Your task to perform on an android device: check storage Image 0: 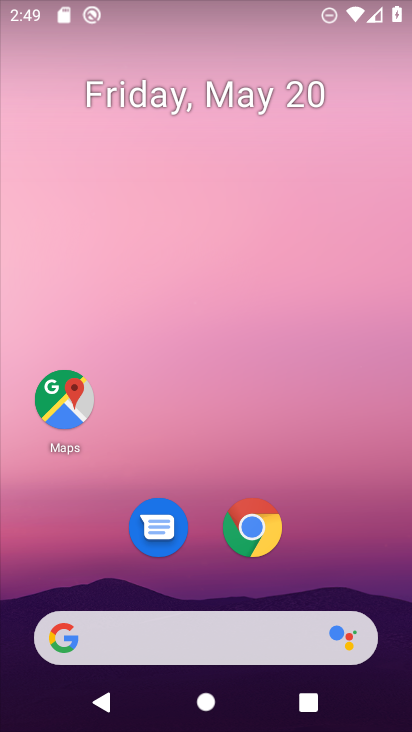
Step 0: drag from (190, 537) to (257, 53)
Your task to perform on an android device: check storage Image 1: 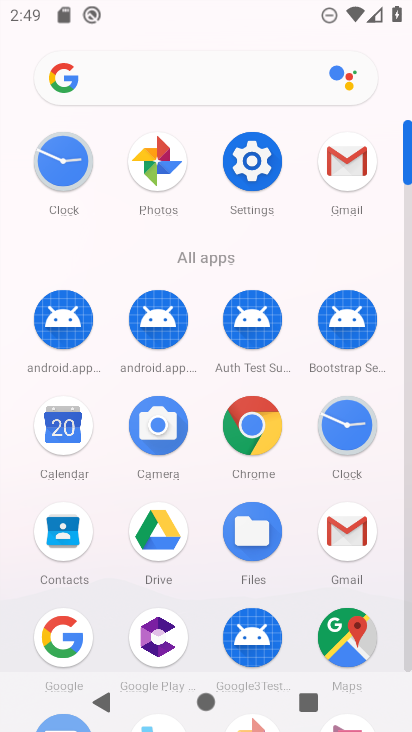
Step 1: click (250, 168)
Your task to perform on an android device: check storage Image 2: 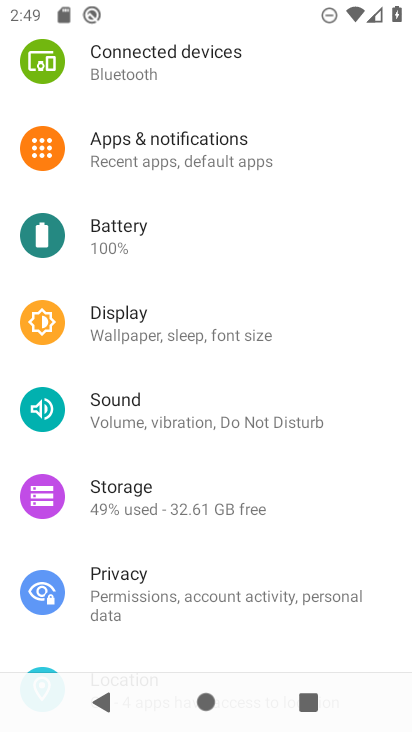
Step 2: click (112, 520)
Your task to perform on an android device: check storage Image 3: 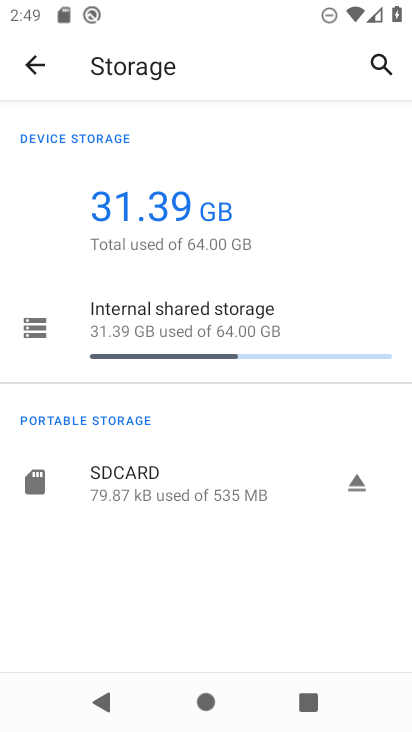
Step 3: task complete